Your task to perform on an android device: change notification settings in the gmail app Image 0: 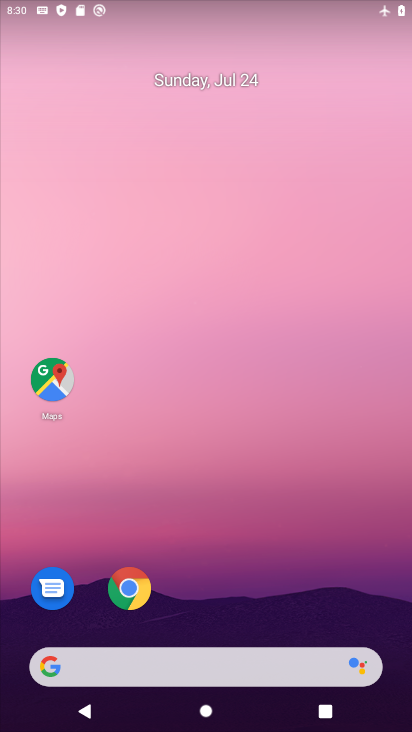
Step 0: drag from (155, 649) to (146, 137)
Your task to perform on an android device: change notification settings in the gmail app Image 1: 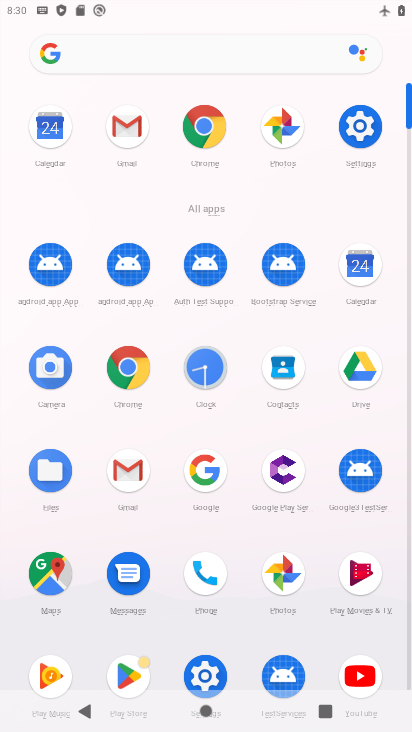
Step 1: click (120, 123)
Your task to perform on an android device: change notification settings in the gmail app Image 2: 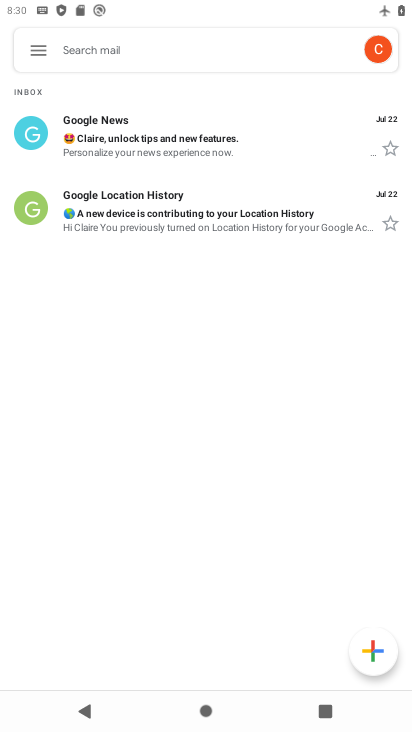
Step 2: click (45, 41)
Your task to perform on an android device: change notification settings in the gmail app Image 3: 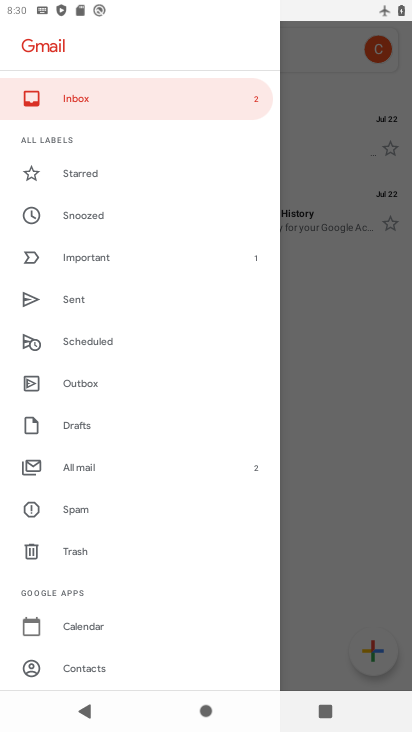
Step 3: drag from (121, 542) to (115, 202)
Your task to perform on an android device: change notification settings in the gmail app Image 4: 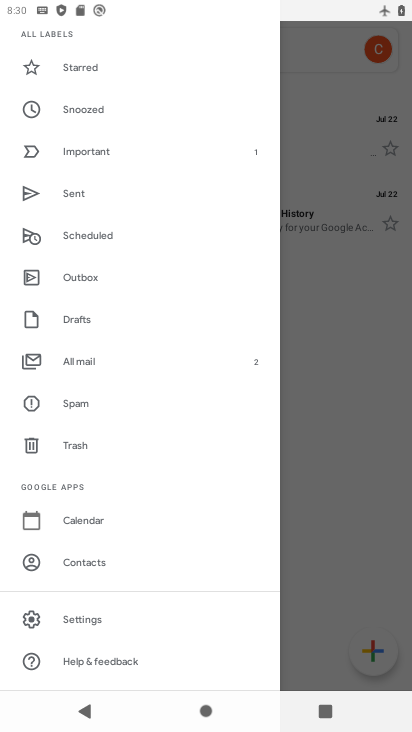
Step 4: click (104, 615)
Your task to perform on an android device: change notification settings in the gmail app Image 5: 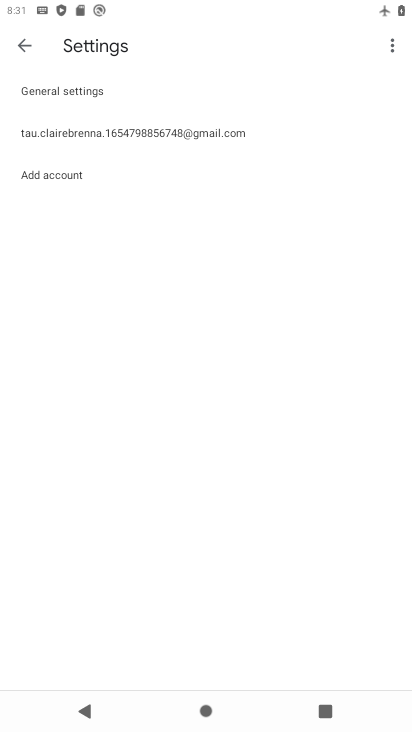
Step 5: click (69, 141)
Your task to perform on an android device: change notification settings in the gmail app Image 6: 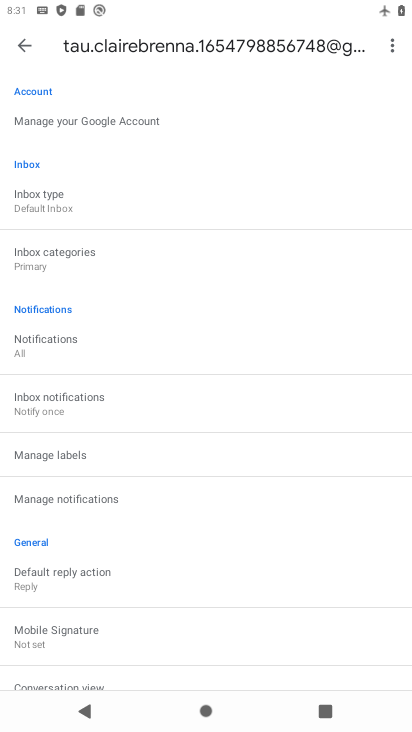
Step 6: click (73, 357)
Your task to perform on an android device: change notification settings in the gmail app Image 7: 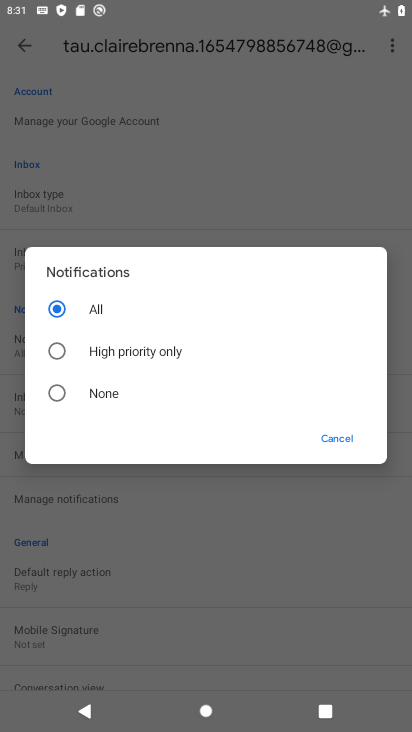
Step 7: click (91, 405)
Your task to perform on an android device: change notification settings in the gmail app Image 8: 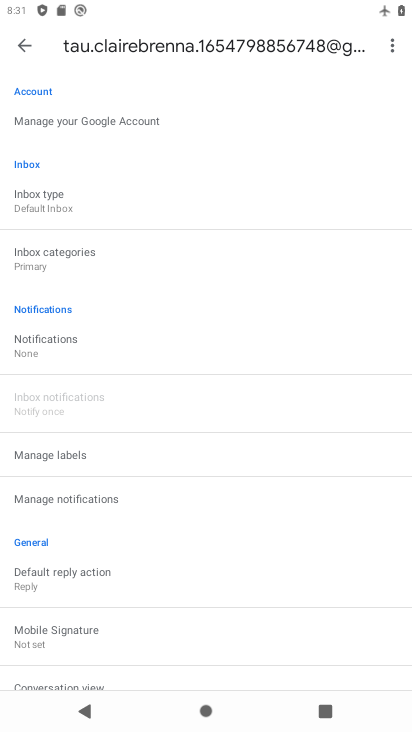
Step 8: task complete